Your task to perform on an android device: Open Youtube and go to "Your channel" Image 0: 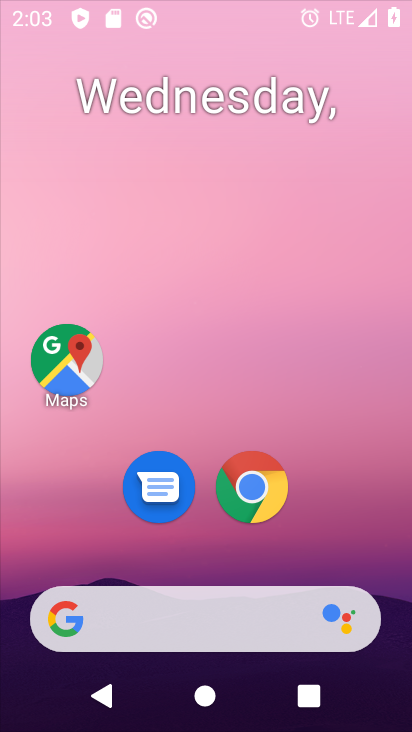
Step 0: click (227, 70)
Your task to perform on an android device: Open Youtube and go to "Your channel" Image 1: 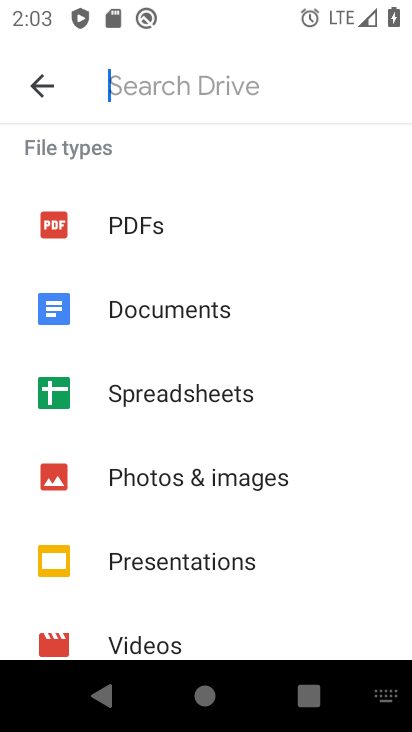
Step 1: press home button
Your task to perform on an android device: Open Youtube and go to "Your channel" Image 2: 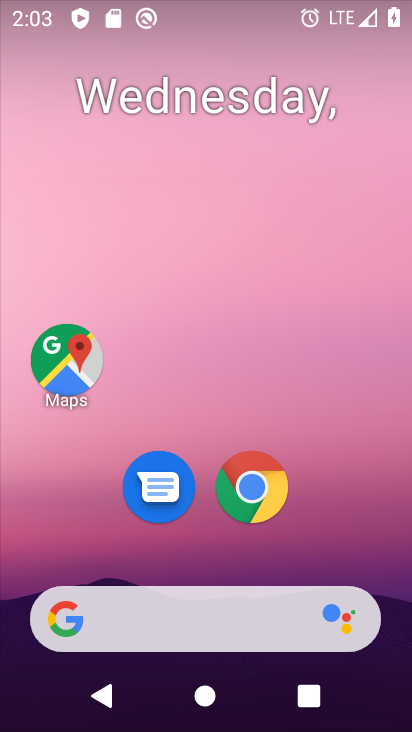
Step 2: drag from (393, 620) to (244, 111)
Your task to perform on an android device: Open Youtube and go to "Your channel" Image 3: 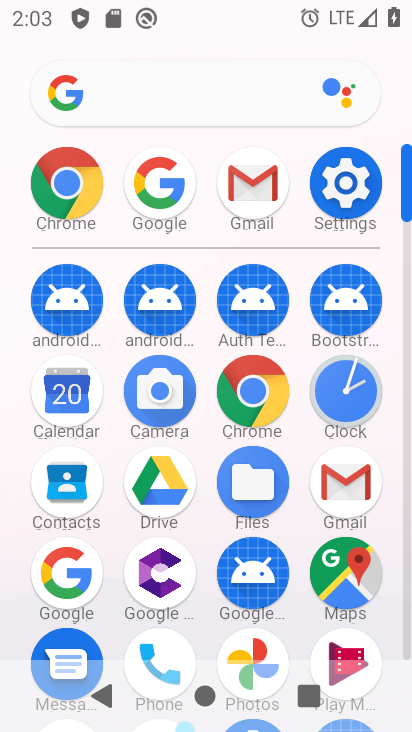
Step 3: click (404, 658)
Your task to perform on an android device: Open Youtube and go to "Your channel" Image 4: 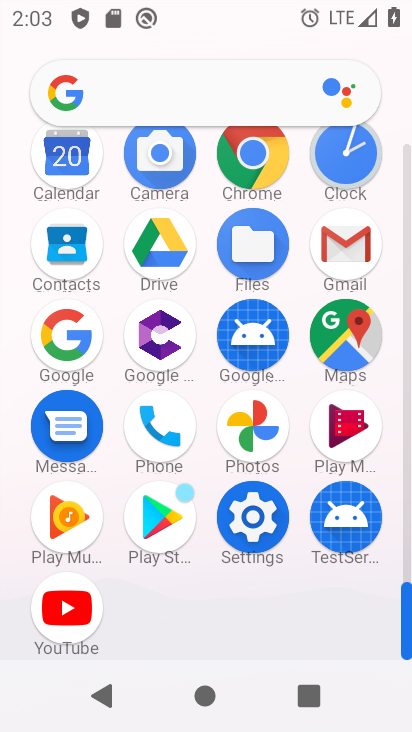
Step 4: click (67, 604)
Your task to perform on an android device: Open Youtube and go to "Your channel" Image 5: 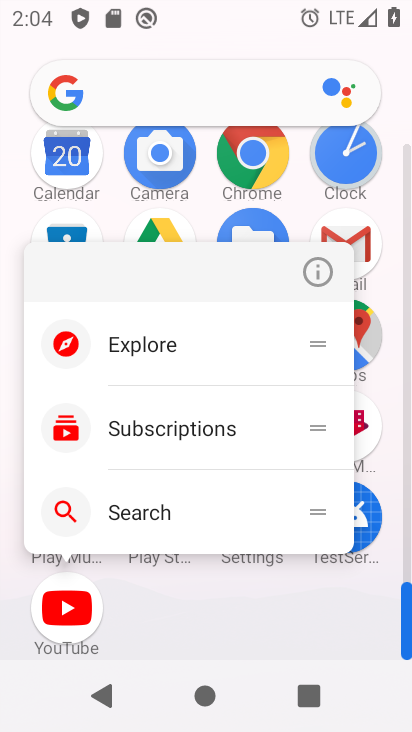
Step 5: click (66, 602)
Your task to perform on an android device: Open Youtube and go to "Your channel" Image 6: 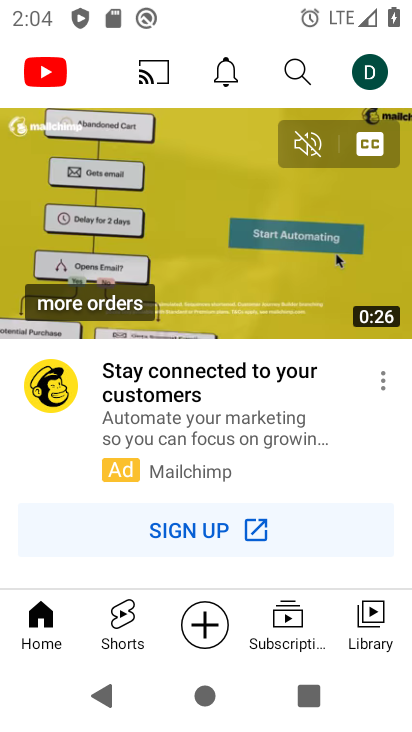
Step 6: click (364, 74)
Your task to perform on an android device: Open Youtube and go to "Your channel" Image 7: 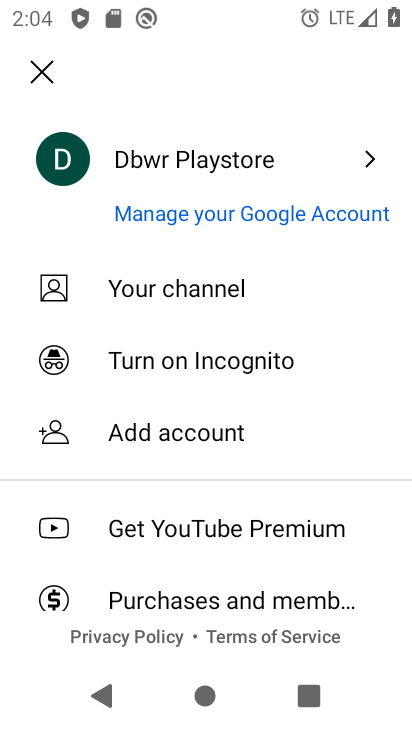
Step 7: click (263, 299)
Your task to perform on an android device: Open Youtube and go to "Your channel" Image 8: 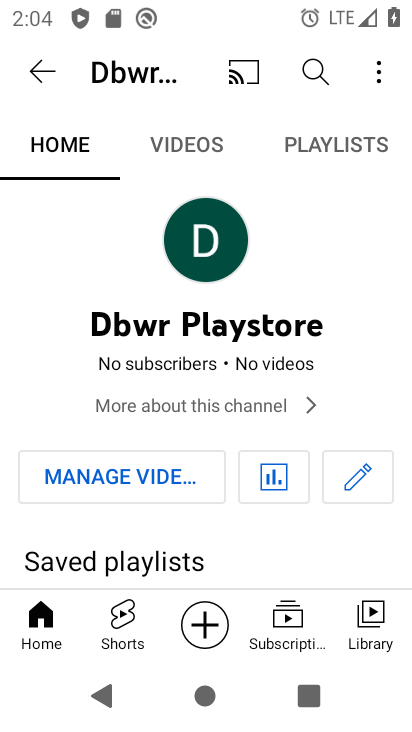
Step 8: task complete